Your task to perform on an android device: Open battery settings Image 0: 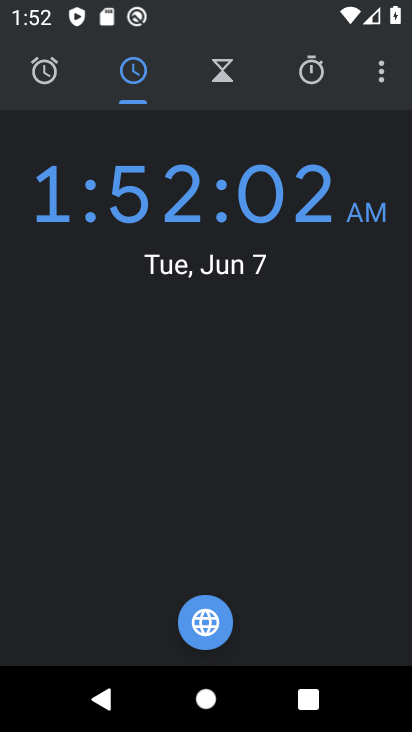
Step 0: press home button
Your task to perform on an android device: Open battery settings Image 1: 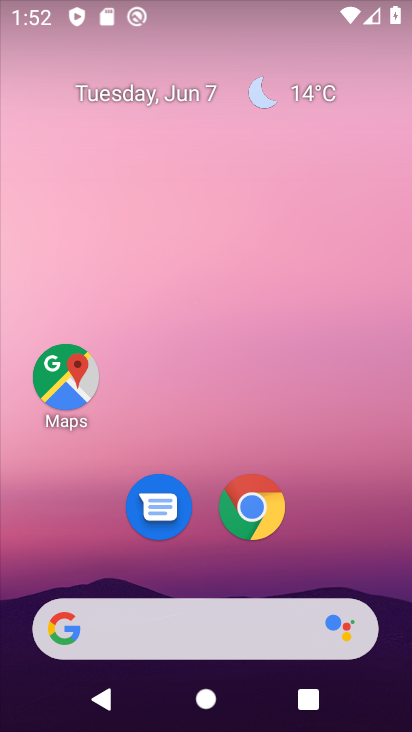
Step 1: drag from (333, 529) to (256, 46)
Your task to perform on an android device: Open battery settings Image 2: 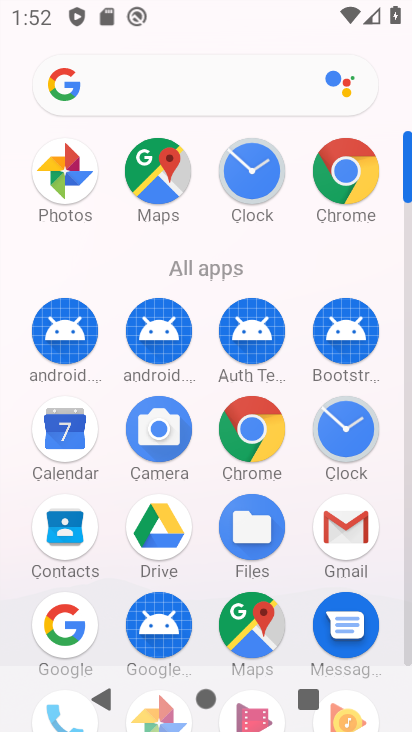
Step 2: drag from (302, 433) to (301, 46)
Your task to perform on an android device: Open battery settings Image 3: 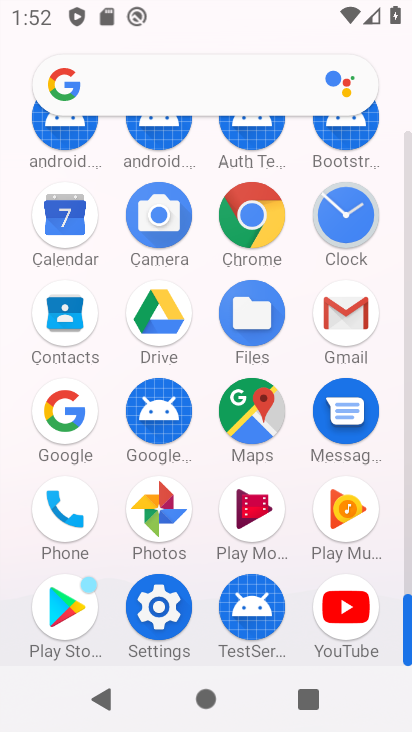
Step 3: click (305, 171)
Your task to perform on an android device: Open battery settings Image 4: 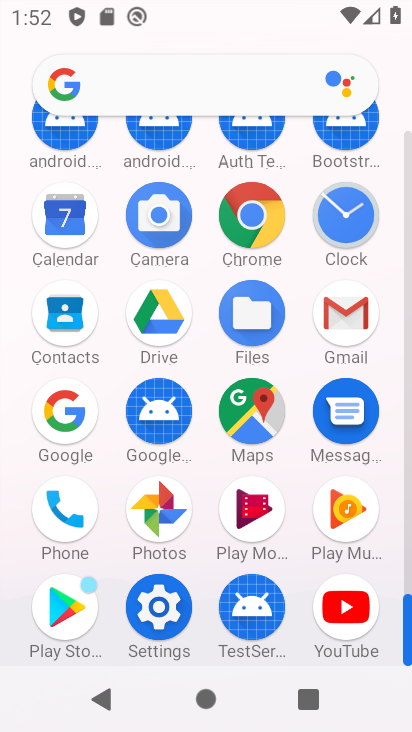
Step 4: click (164, 604)
Your task to perform on an android device: Open battery settings Image 5: 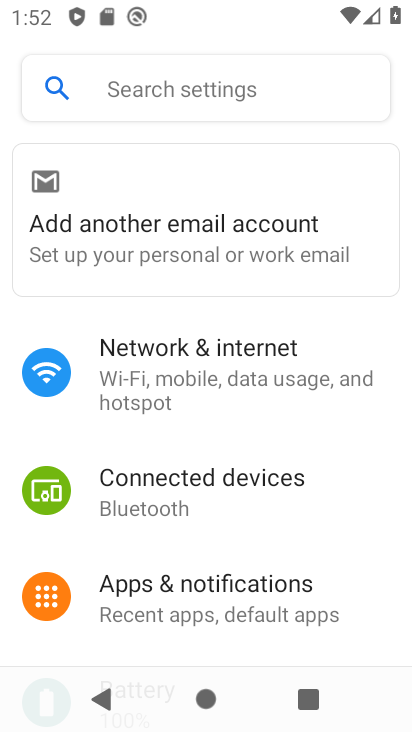
Step 5: drag from (241, 445) to (260, 13)
Your task to perform on an android device: Open battery settings Image 6: 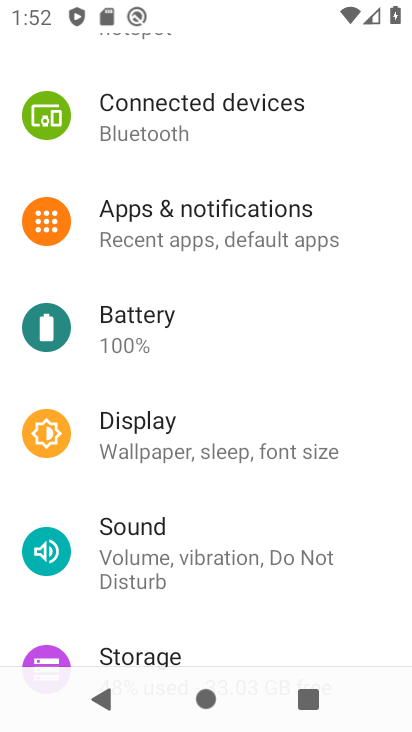
Step 6: drag from (232, 491) to (211, 42)
Your task to perform on an android device: Open battery settings Image 7: 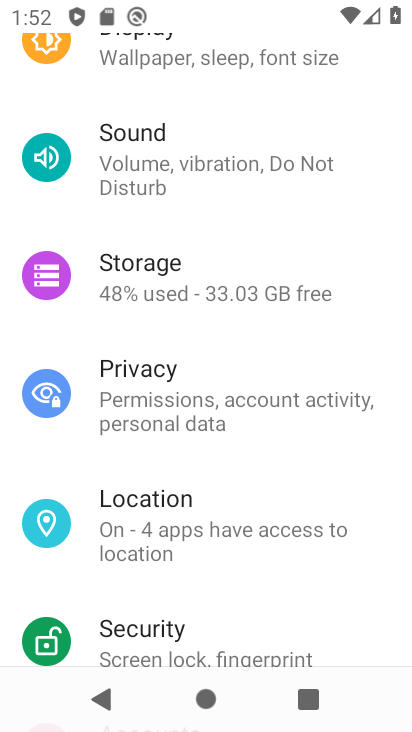
Step 7: drag from (226, 182) to (223, 546)
Your task to perform on an android device: Open battery settings Image 8: 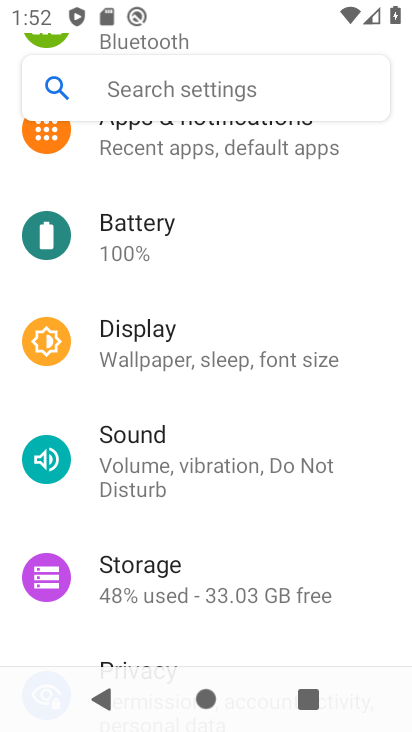
Step 8: click (151, 251)
Your task to perform on an android device: Open battery settings Image 9: 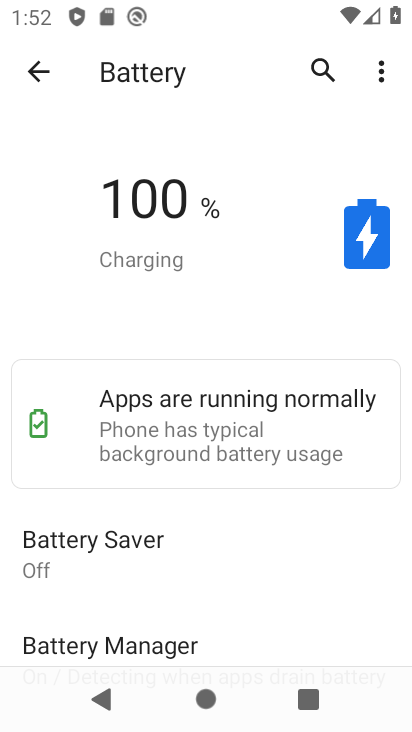
Step 9: task complete